Your task to perform on an android device: create a new album in the google photos Image 0: 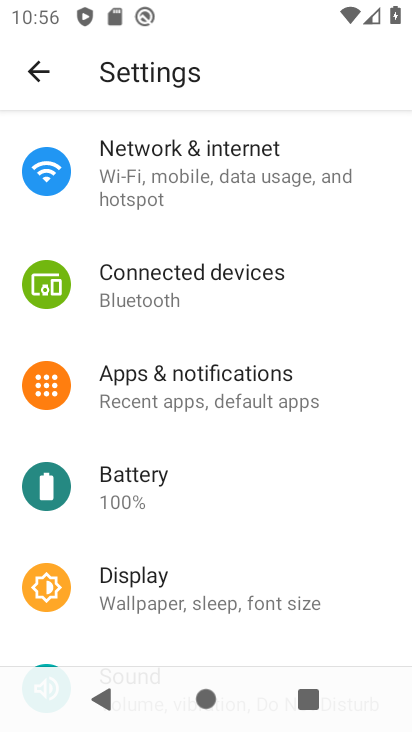
Step 0: press home button
Your task to perform on an android device: create a new album in the google photos Image 1: 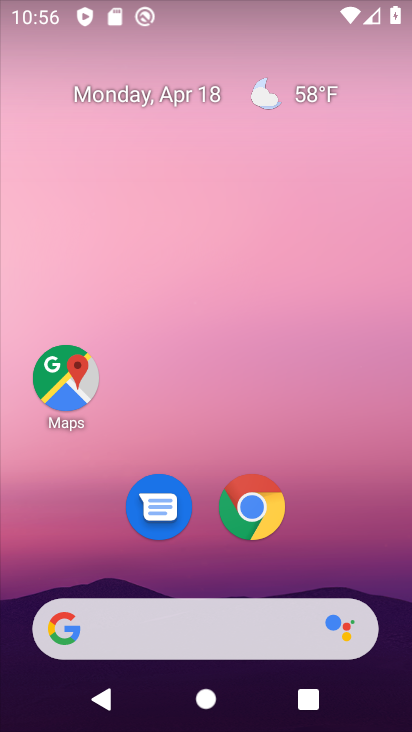
Step 1: drag from (213, 425) to (203, 11)
Your task to perform on an android device: create a new album in the google photos Image 2: 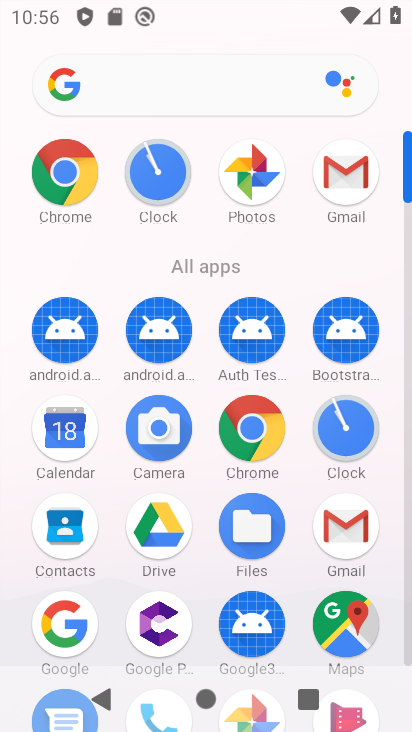
Step 2: click (263, 173)
Your task to perform on an android device: create a new album in the google photos Image 3: 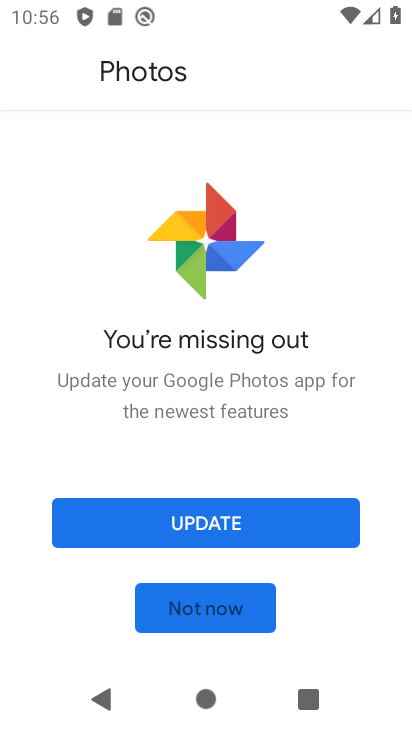
Step 3: click (294, 432)
Your task to perform on an android device: create a new album in the google photos Image 4: 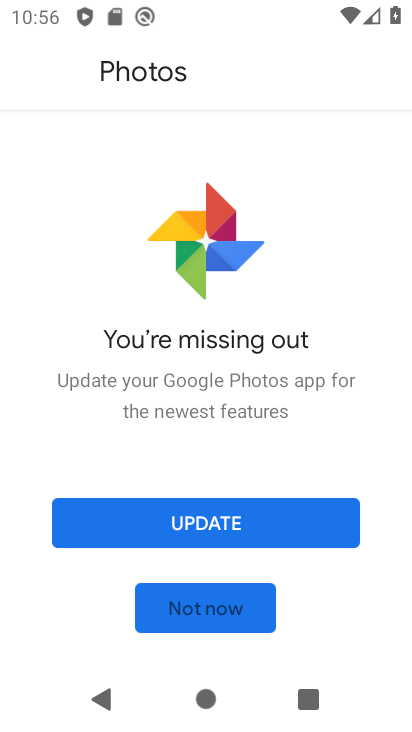
Step 4: click (244, 603)
Your task to perform on an android device: create a new album in the google photos Image 5: 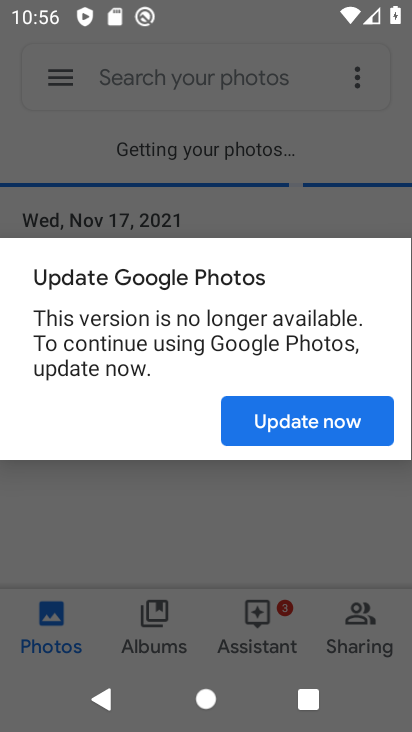
Step 5: click (281, 415)
Your task to perform on an android device: create a new album in the google photos Image 6: 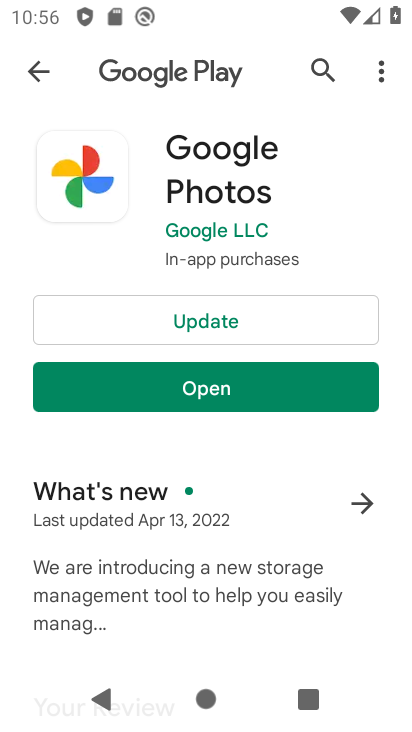
Step 6: click (245, 386)
Your task to perform on an android device: create a new album in the google photos Image 7: 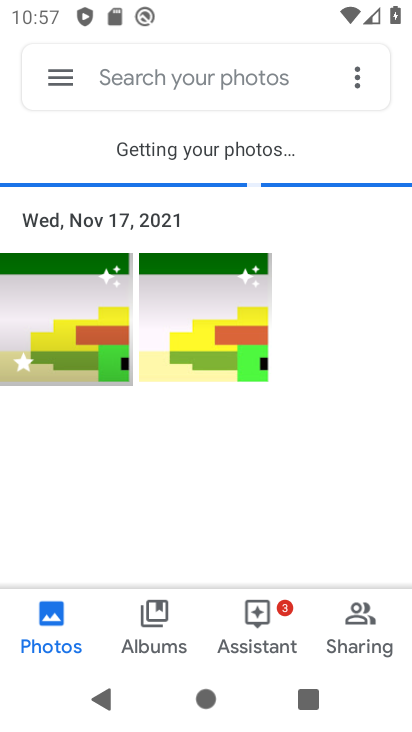
Step 7: click (120, 330)
Your task to perform on an android device: create a new album in the google photos Image 8: 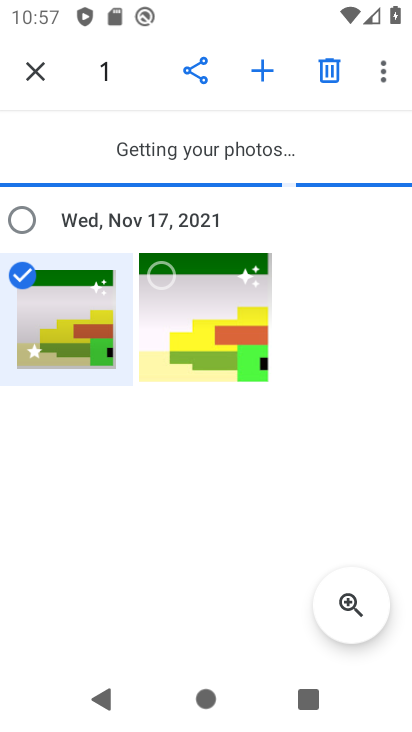
Step 8: click (173, 330)
Your task to perform on an android device: create a new album in the google photos Image 9: 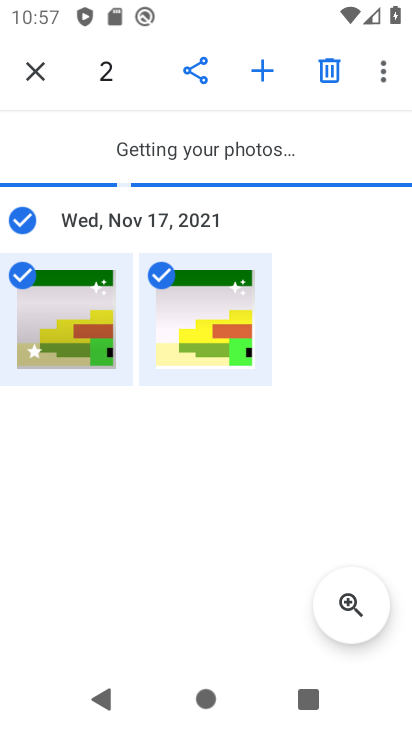
Step 9: click (256, 85)
Your task to perform on an android device: create a new album in the google photos Image 10: 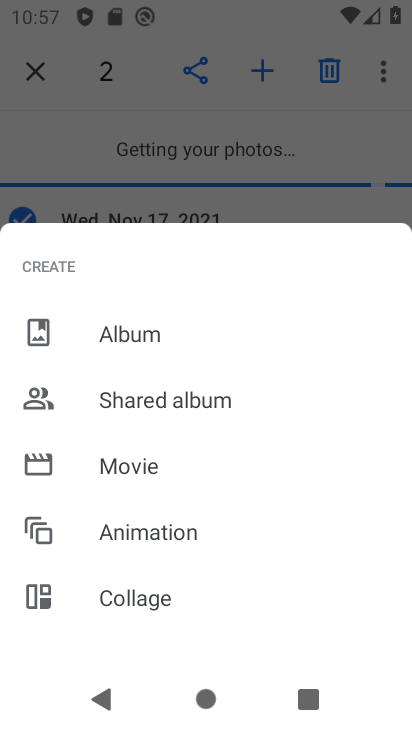
Step 10: click (168, 299)
Your task to perform on an android device: create a new album in the google photos Image 11: 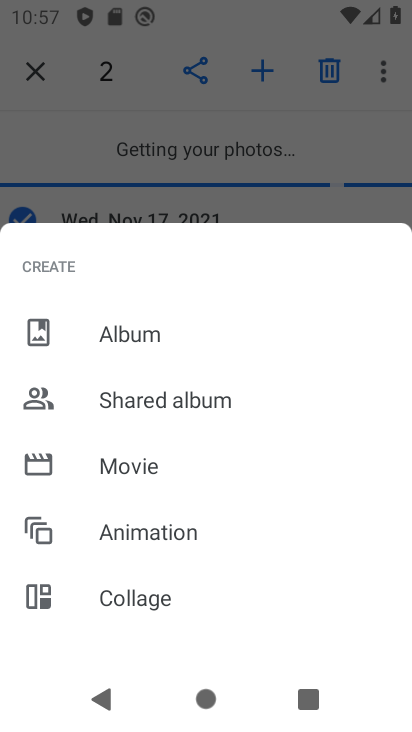
Step 11: click (103, 335)
Your task to perform on an android device: create a new album in the google photos Image 12: 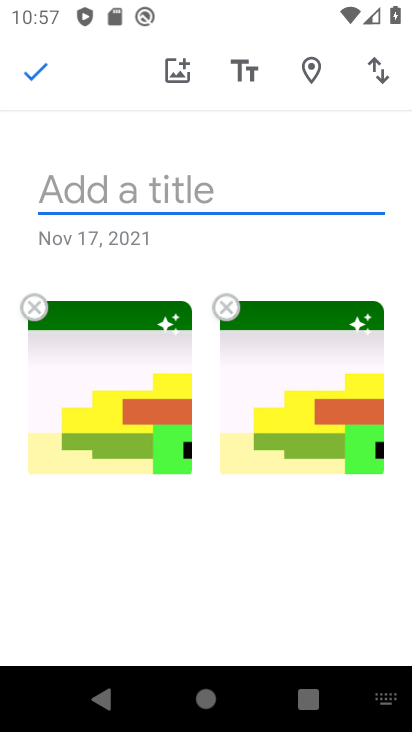
Step 12: type "ro"
Your task to perform on an android device: create a new album in the google photos Image 13: 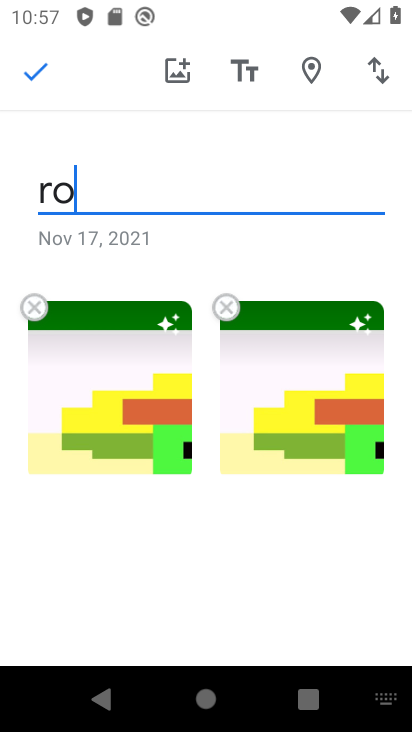
Step 13: type ""
Your task to perform on an android device: create a new album in the google photos Image 14: 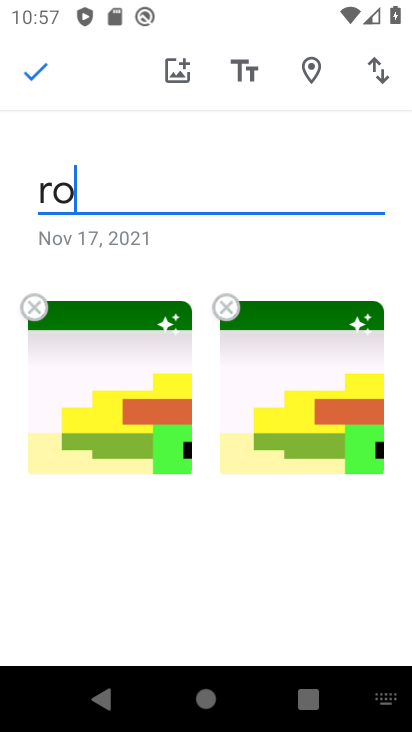
Step 14: click (37, 62)
Your task to perform on an android device: create a new album in the google photos Image 15: 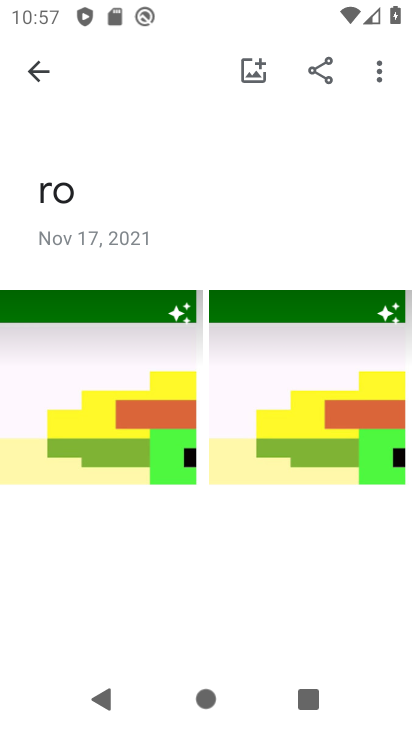
Step 15: task complete